Your task to perform on an android device: snooze an email in the gmail app Image 0: 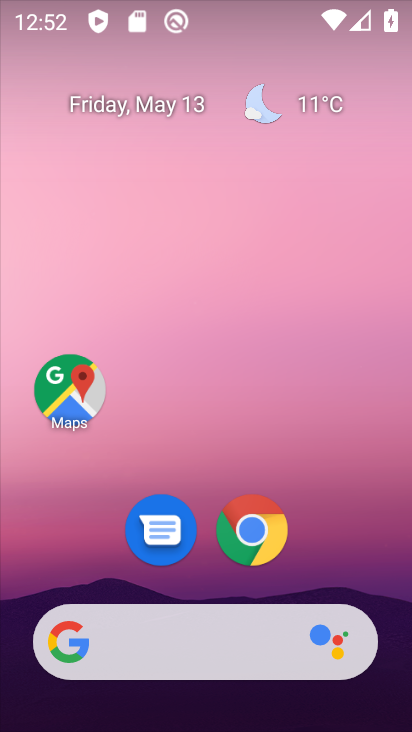
Step 0: drag from (211, 600) to (188, 123)
Your task to perform on an android device: snooze an email in the gmail app Image 1: 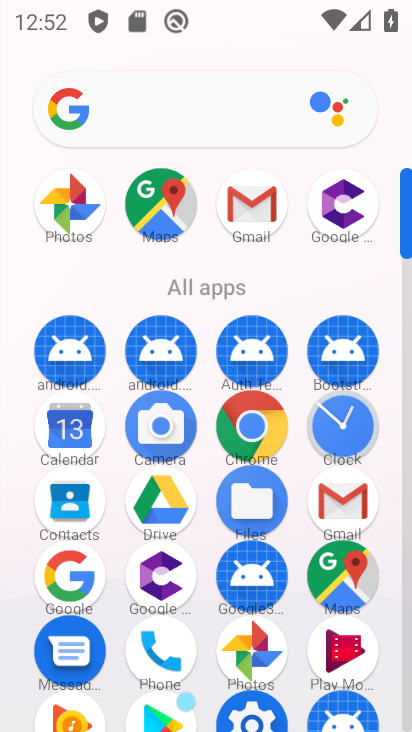
Step 1: click (245, 221)
Your task to perform on an android device: snooze an email in the gmail app Image 2: 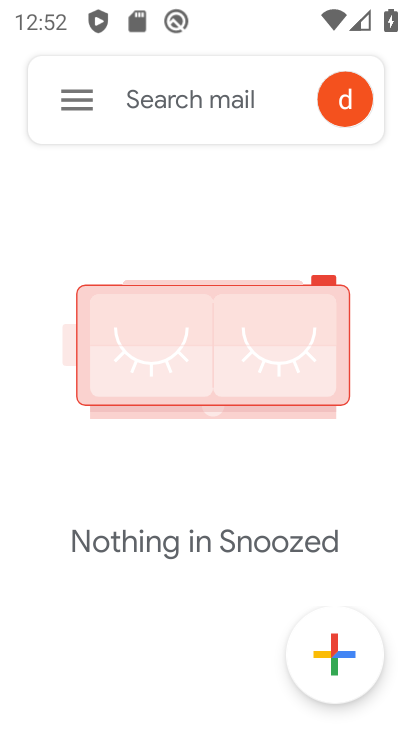
Step 2: click (67, 101)
Your task to perform on an android device: snooze an email in the gmail app Image 3: 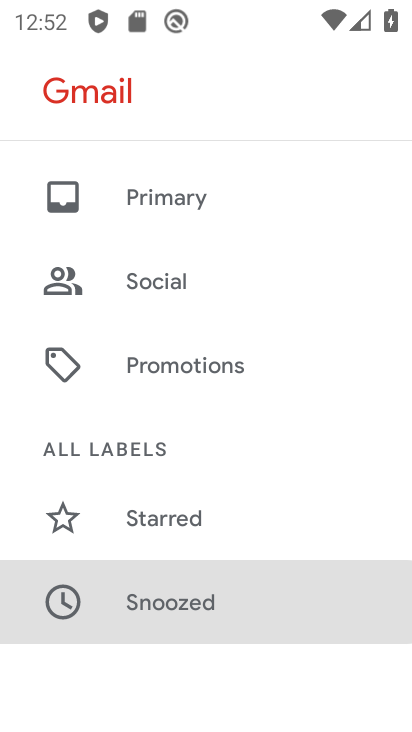
Step 3: drag from (198, 213) to (179, 603)
Your task to perform on an android device: snooze an email in the gmail app Image 4: 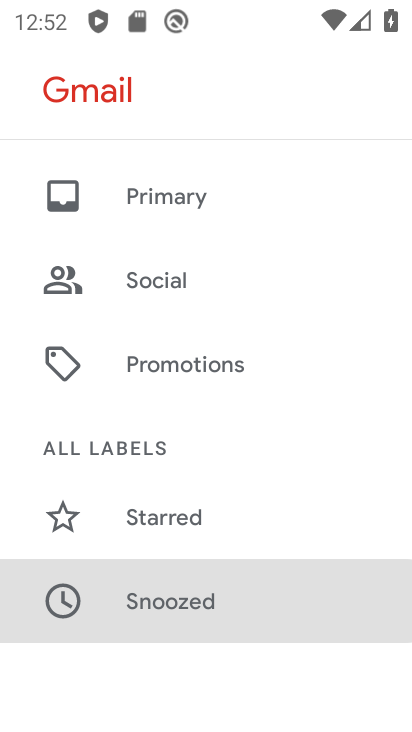
Step 4: click (159, 194)
Your task to perform on an android device: snooze an email in the gmail app Image 5: 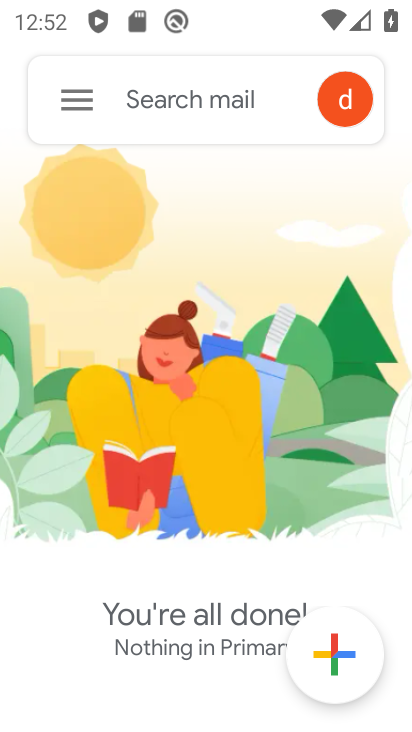
Step 5: click (77, 100)
Your task to perform on an android device: snooze an email in the gmail app Image 6: 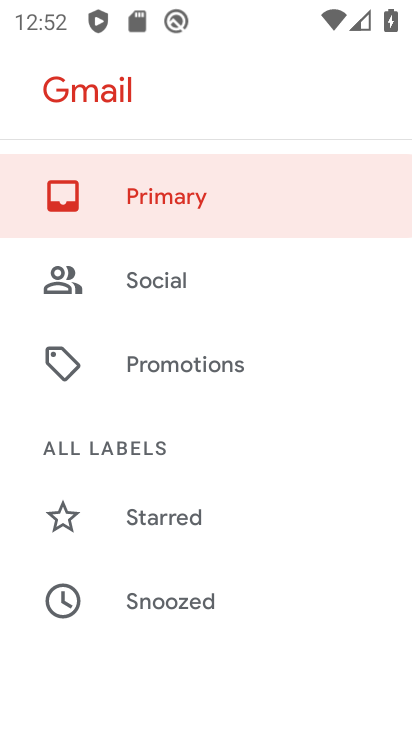
Step 6: task complete